Your task to perform on an android device: Show the shopping cart on amazon.com. Image 0: 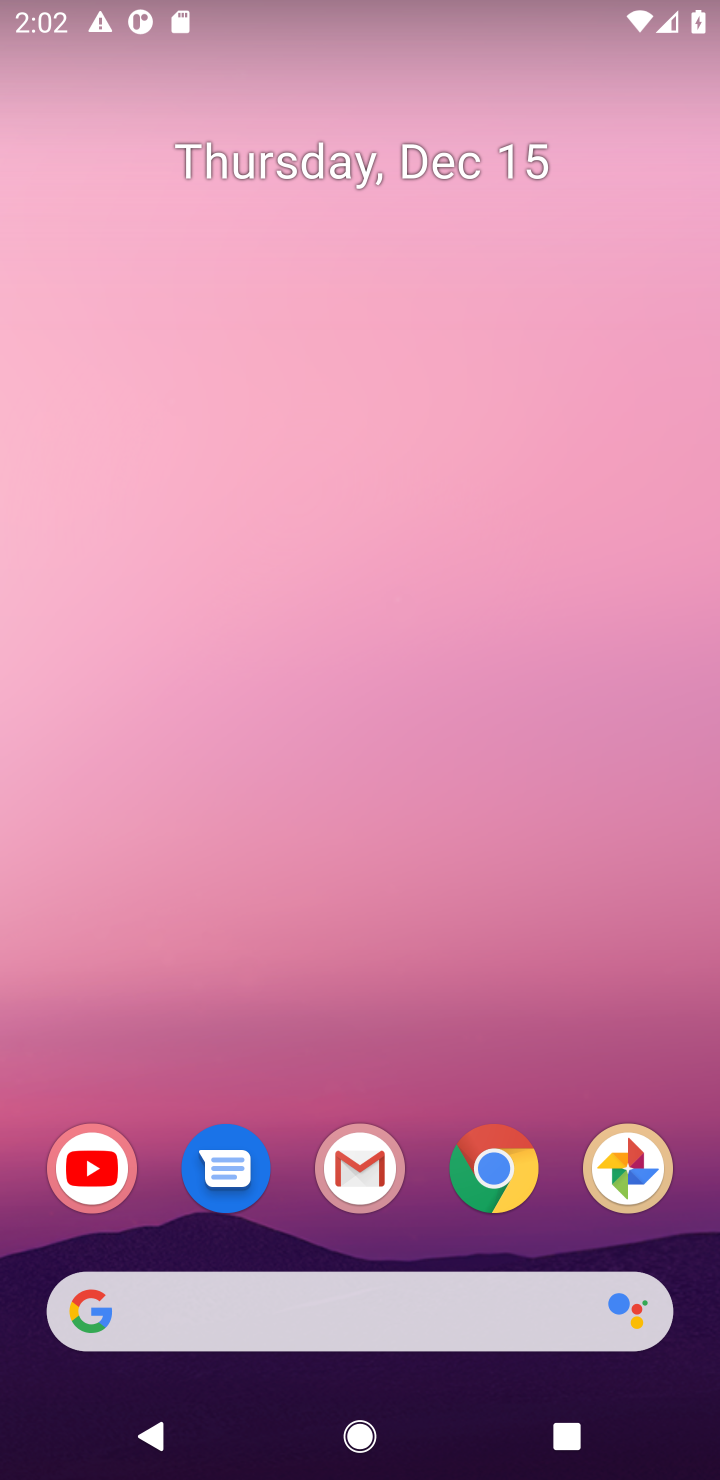
Step 0: click (507, 1181)
Your task to perform on an android device: Show the shopping cart on amazon.com. Image 1: 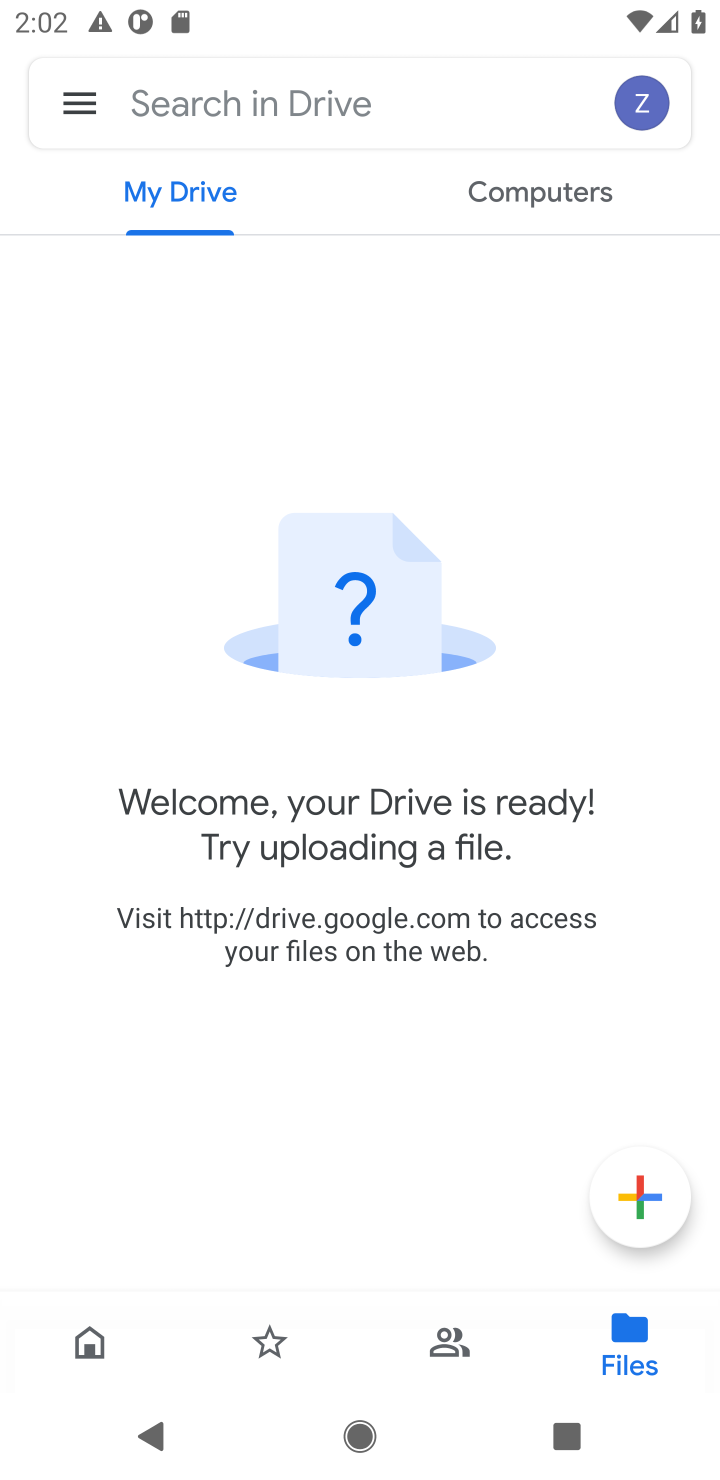
Step 1: press home button
Your task to perform on an android device: Show the shopping cart on amazon.com. Image 2: 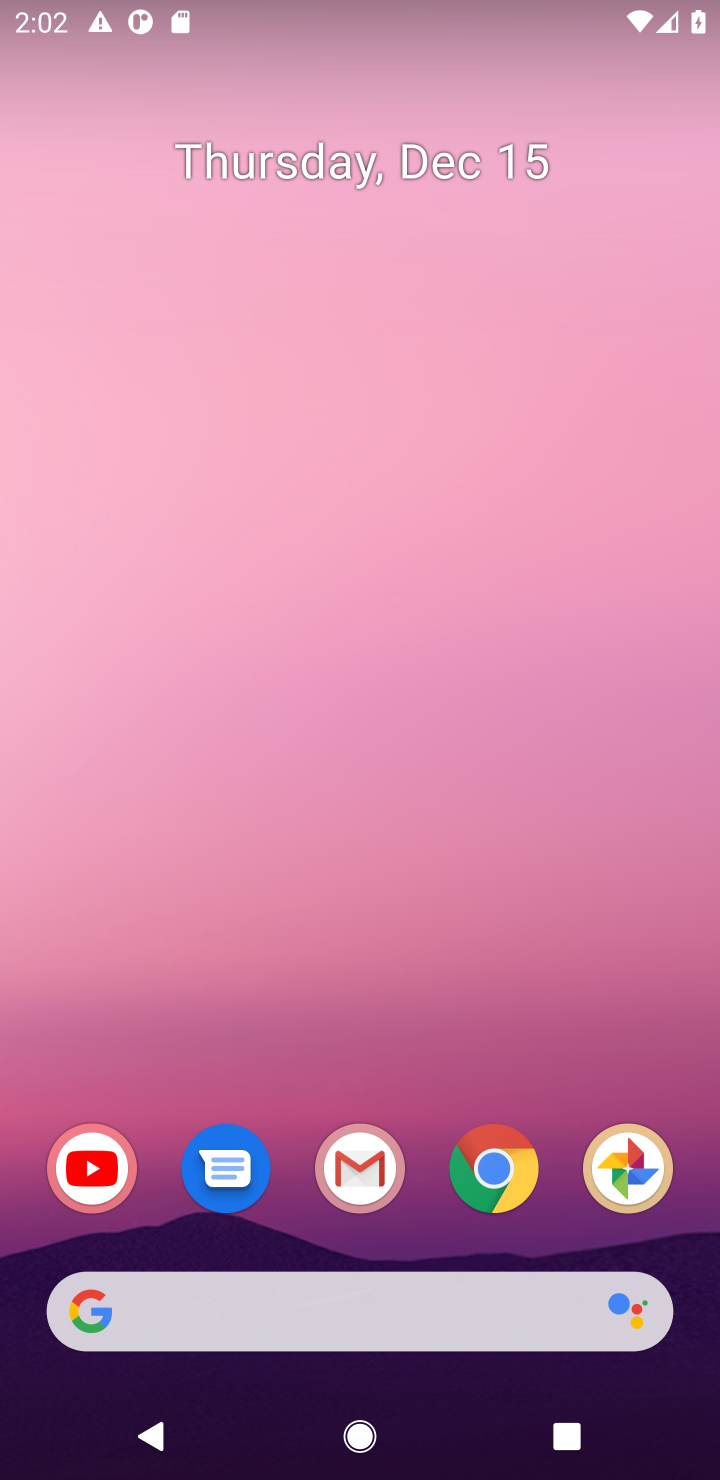
Step 2: click (497, 1174)
Your task to perform on an android device: Show the shopping cart on amazon.com. Image 3: 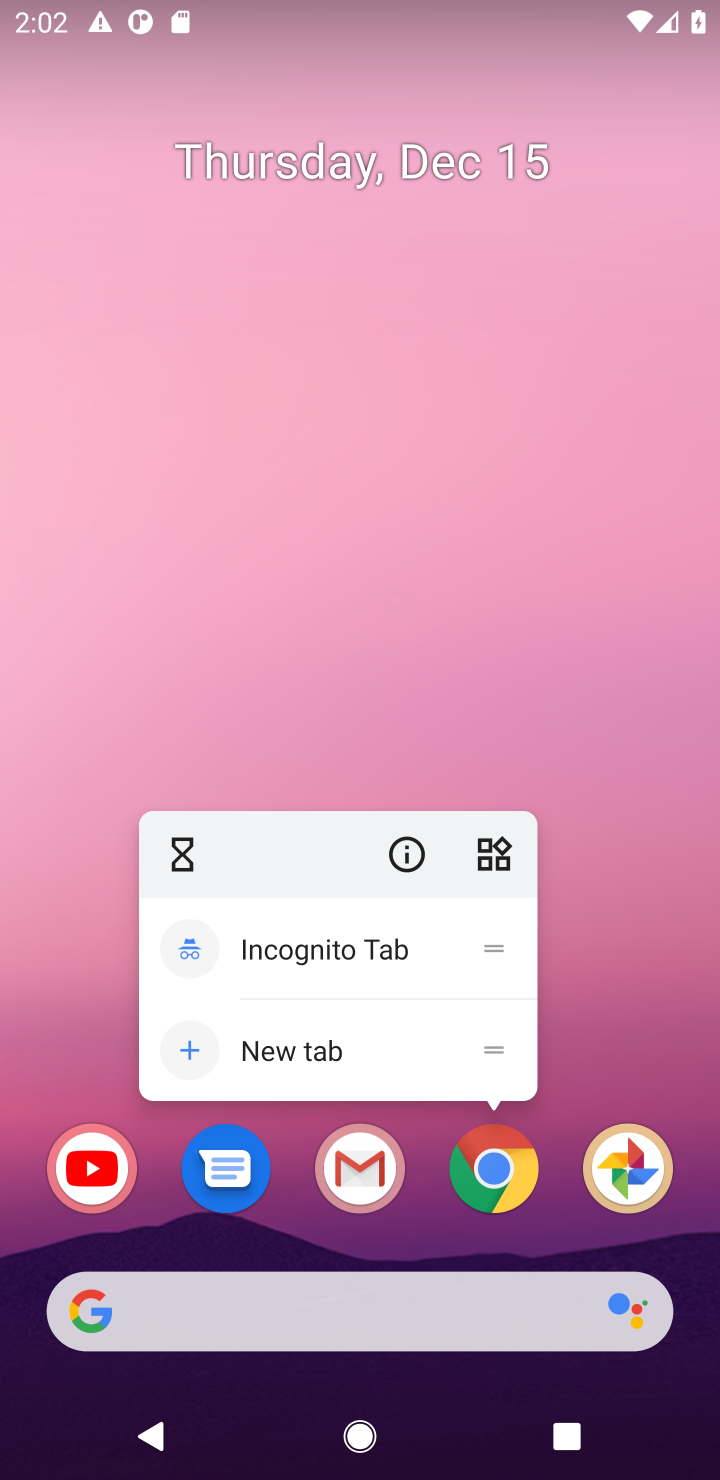
Step 3: click (497, 1174)
Your task to perform on an android device: Show the shopping cart on amazon.com. Image 4: 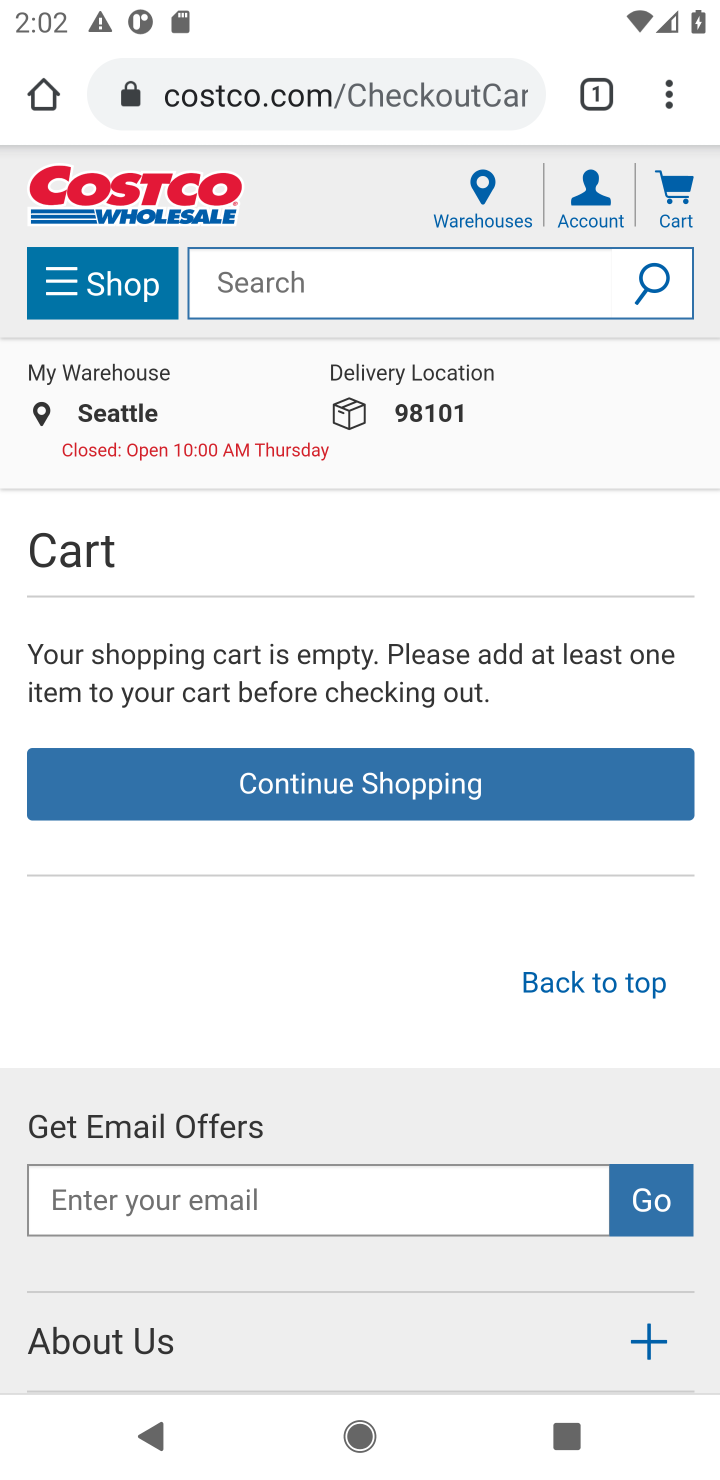
Step 4: click (472, 105)
Your task to perform on an android device: Show the shopping cart on amazon.com. Image 5: 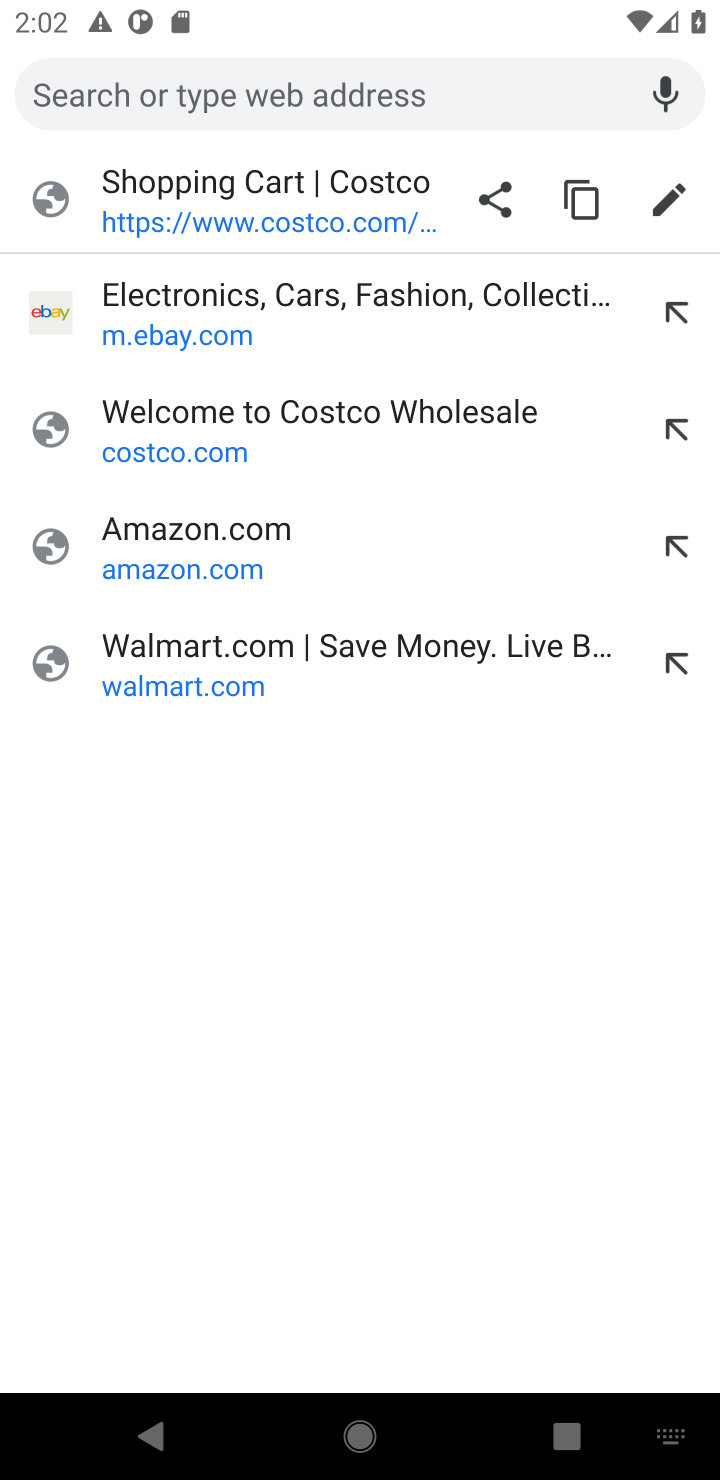
Step 5: click (209, 524)
Your task to perform on an android device: Show the shopping cart on amazon.com. Image 6: 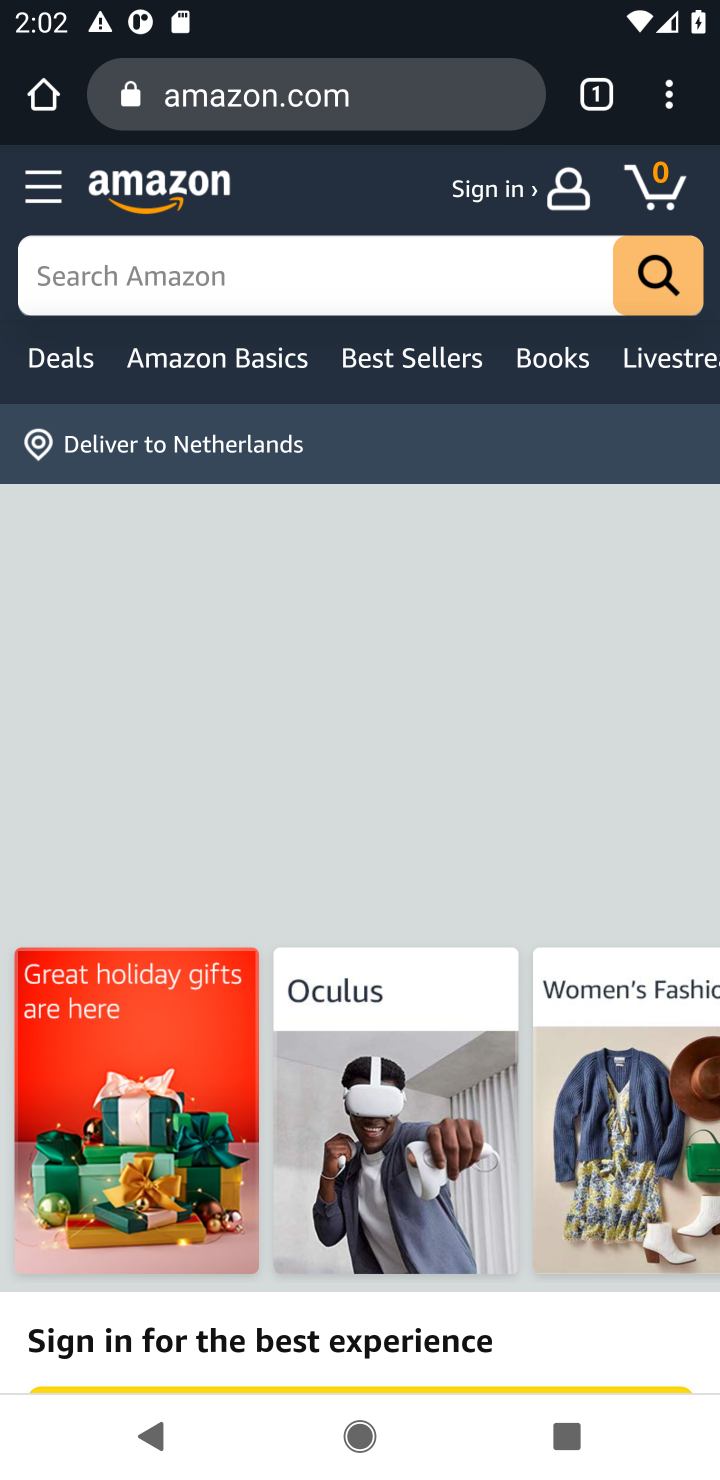
Step 6: click (659, 173)
Your task to perform on an android device: Show the shopping cart on amazon.com. Image 7: 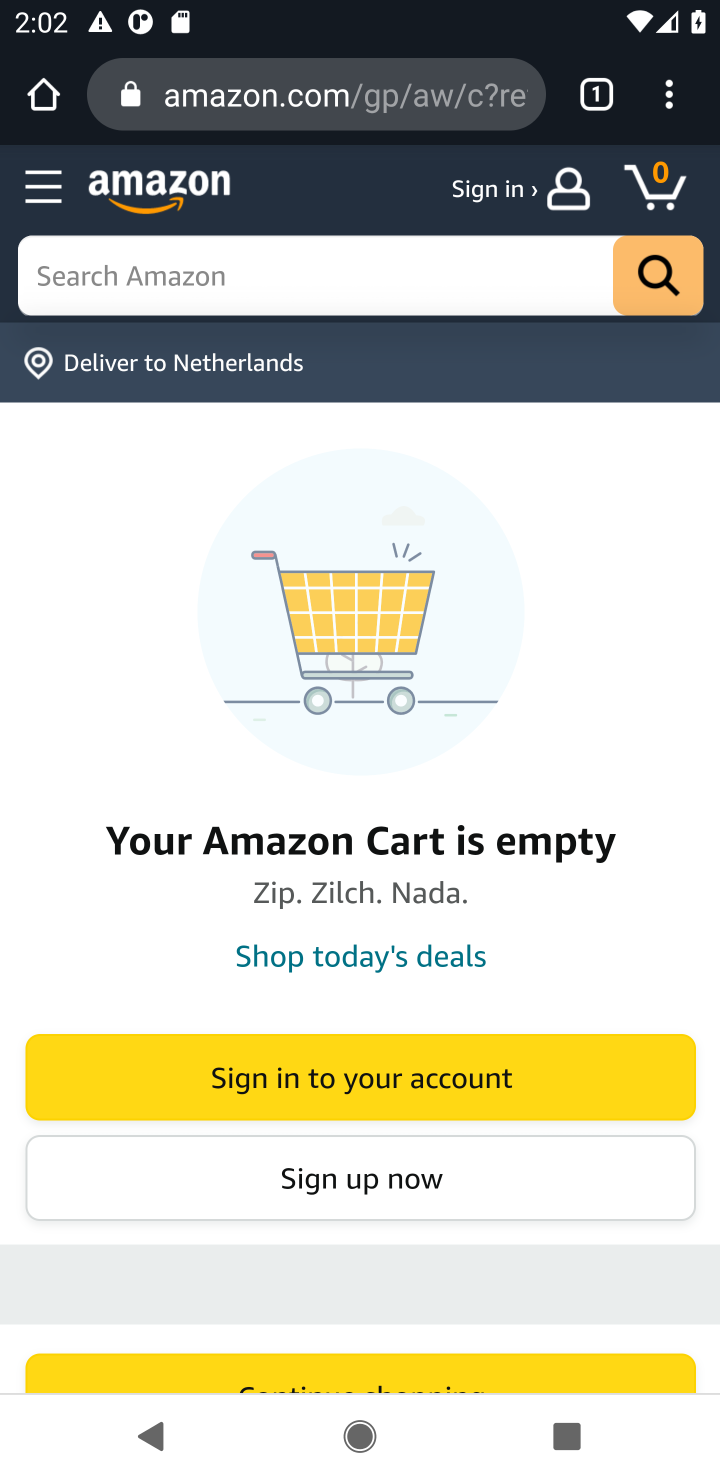
Step 7: task complete